Your task to perform on an android device: turn off smart reply in the gmail app Image 0: 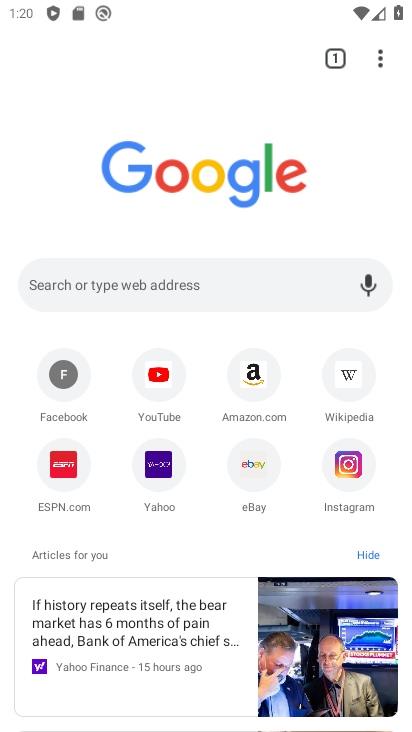
Step 0: press home button
Your task to perform on an android device: turn off smart reply in the gmail app Image 1: 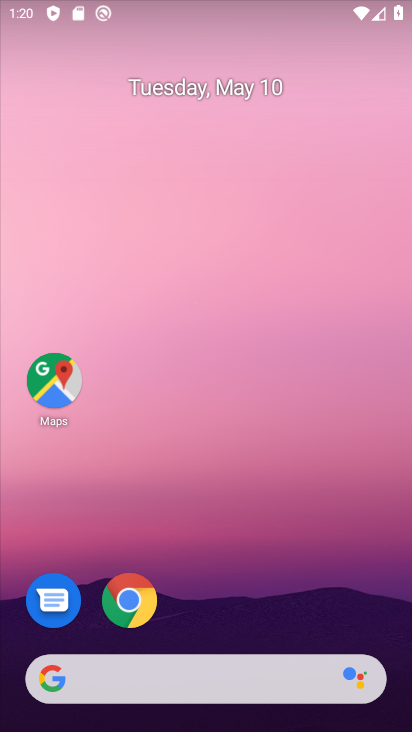
Step 1: drag from (222, 596) to (247, 117)
Your task to perform on an android device: turn off smart reply in the gmail app Image 2: 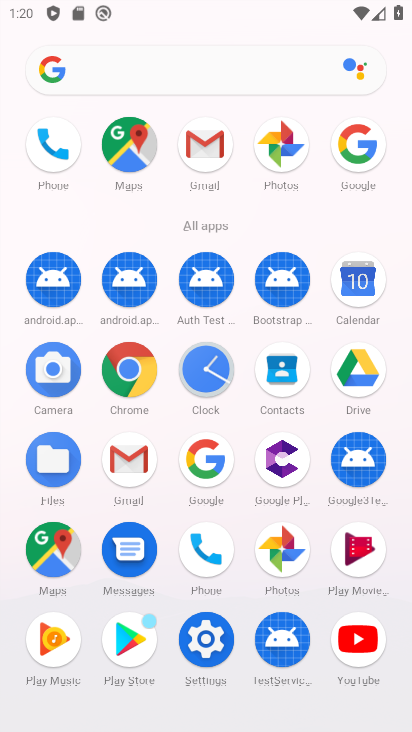
Step 2: click (210, 153)
Your task to perform on an android device: turn off smart reply in the gmail app Image 3: 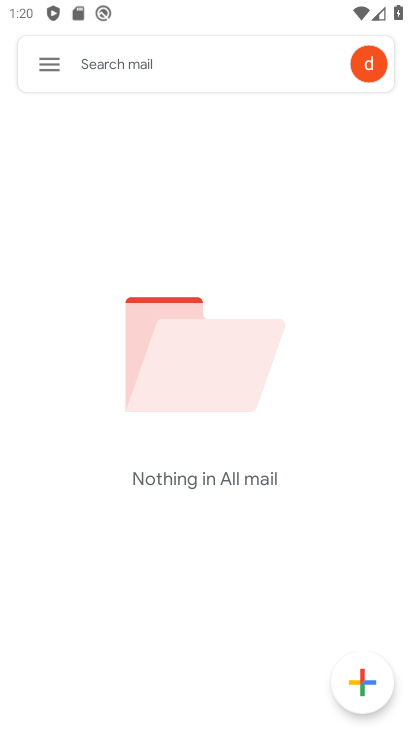
Step 3: click (56, 61)
Your task to perform on an android device: turn off smart reply in the gmail app Image 4: 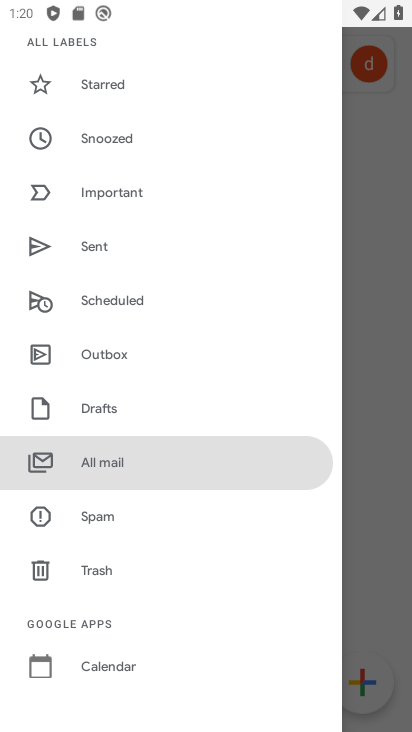
Step 4: drag from (138, 577) to (167, 172)
Your task to perform on an android device: turn off smart reply in the gmail app Image 5: 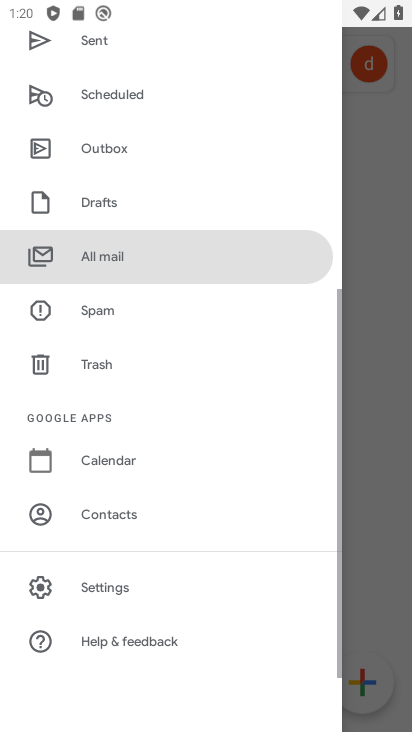
Step 5: click (110, 588)
Your task to perform on an android device: turn off smart reply in the gmail app Image 6: 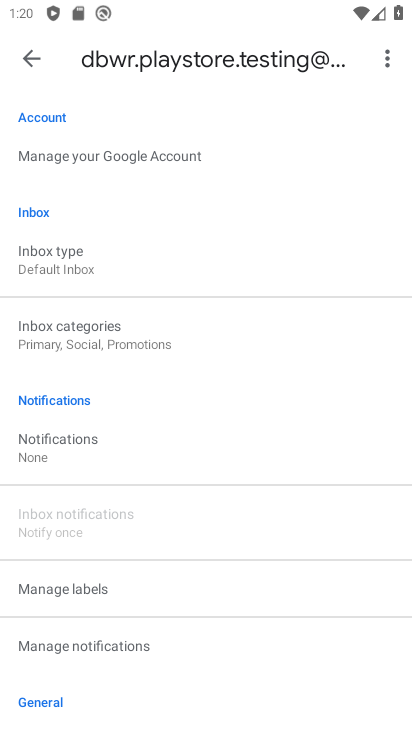
Step 6: drag from (123, 557) to (144, 103)
Your task to perform on an android device: turn off smart reply in the gmail app Image 7: 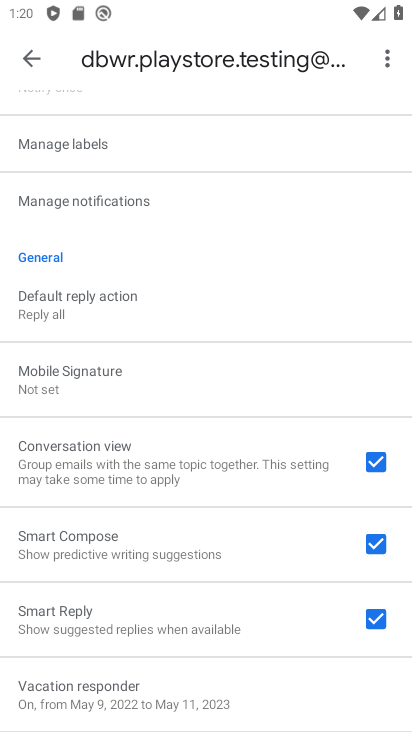
Step 7: click (374, 618)
Your task to perform on an android device: turn off smart reply in the gmail app Image 8: 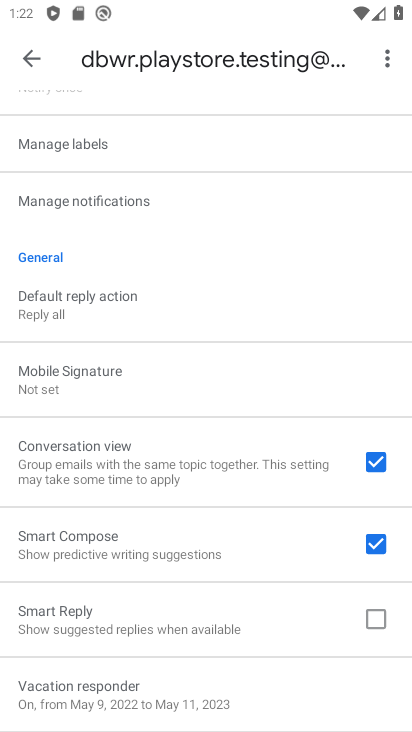
Step 8: task complete